Your task to perform on an android device: Go to accessibility settings Image 0: 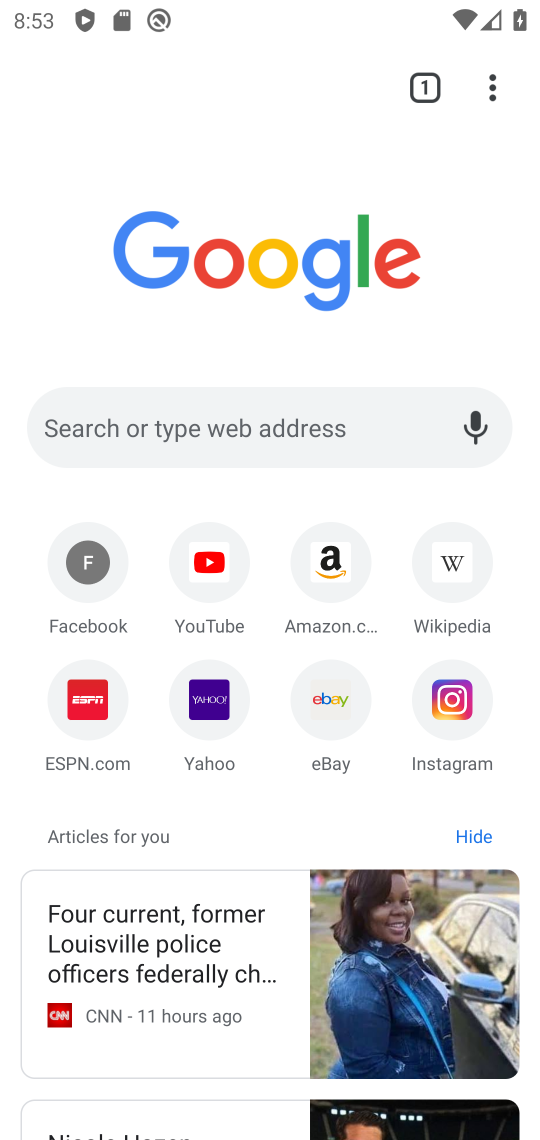
Step 0: press home button
Your task to perform on an android device: Go to accessibility settings Image 1: 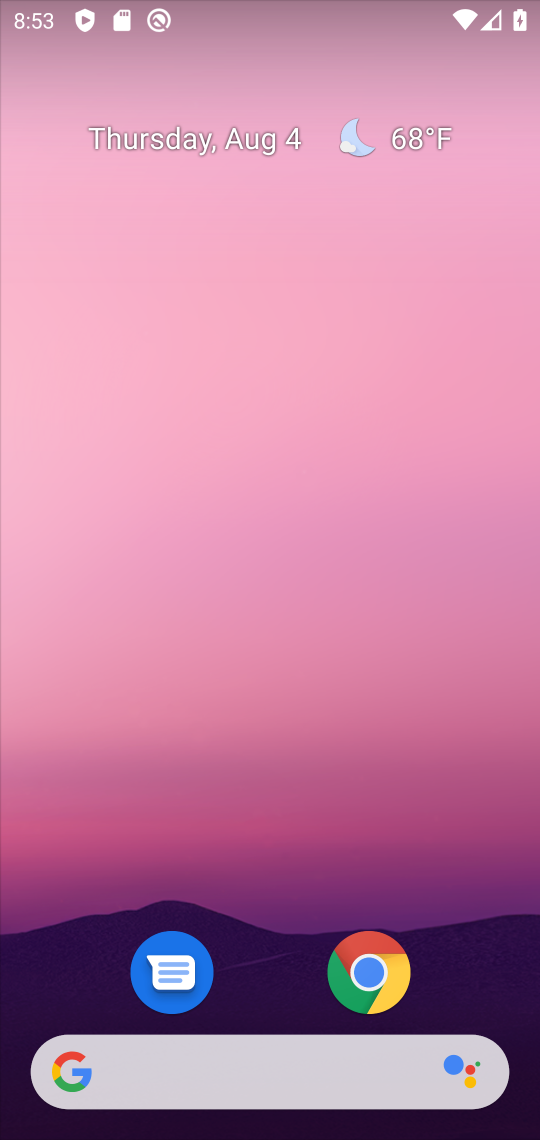
Step 1: drag from (282, 840) to (335, 14)
Your task to perform on an android device: Go to accessibility settings Image 2: 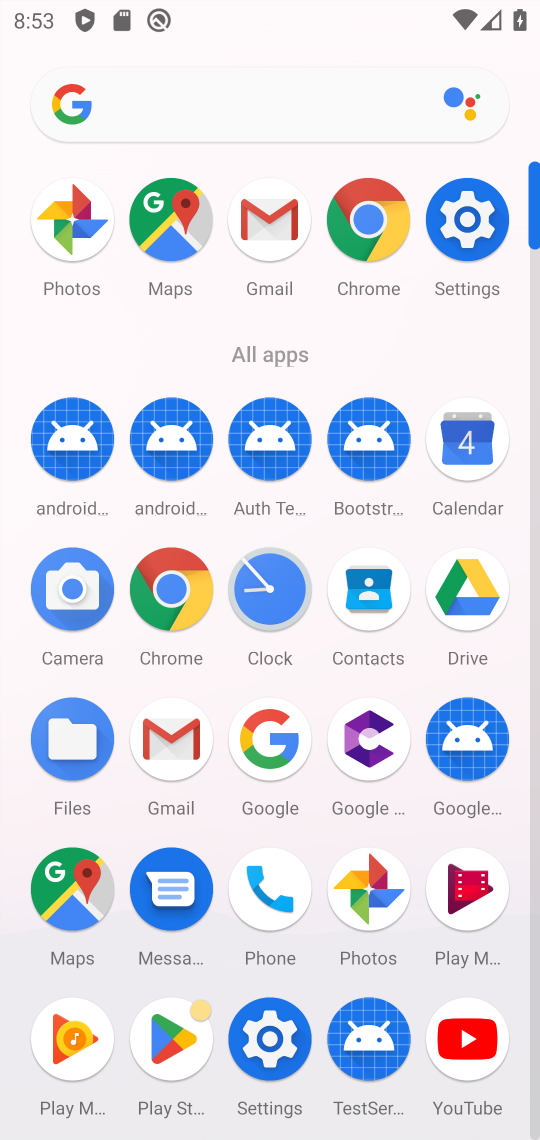
Step 2: click (464, 229)
Your task to perform on an android device: Go to accessibility settings Image 3: 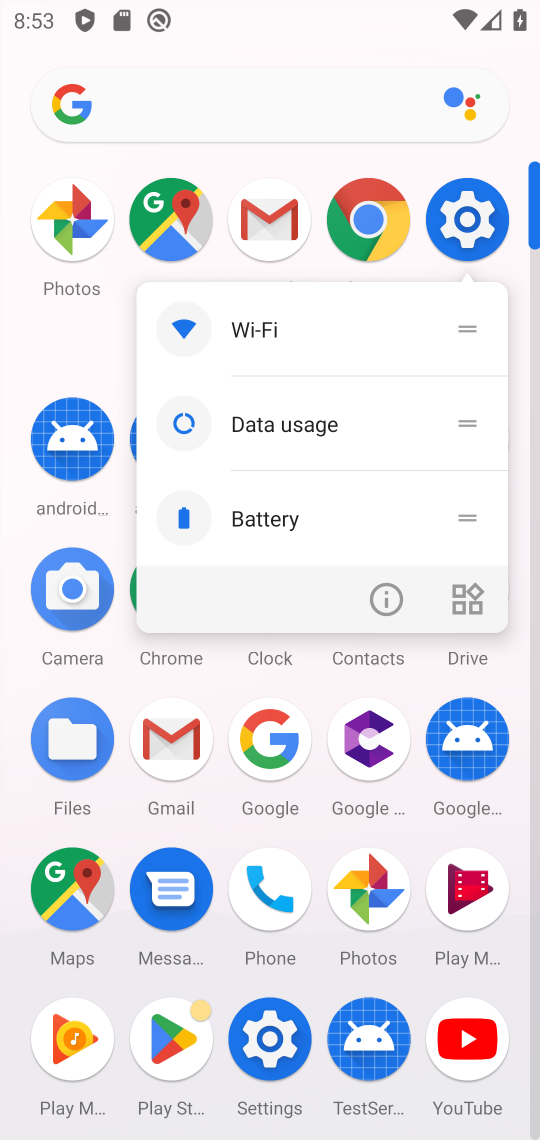
Step 3: click (464, 220)
Your task to perform on an android device: Go to accessibility settings Image 4: 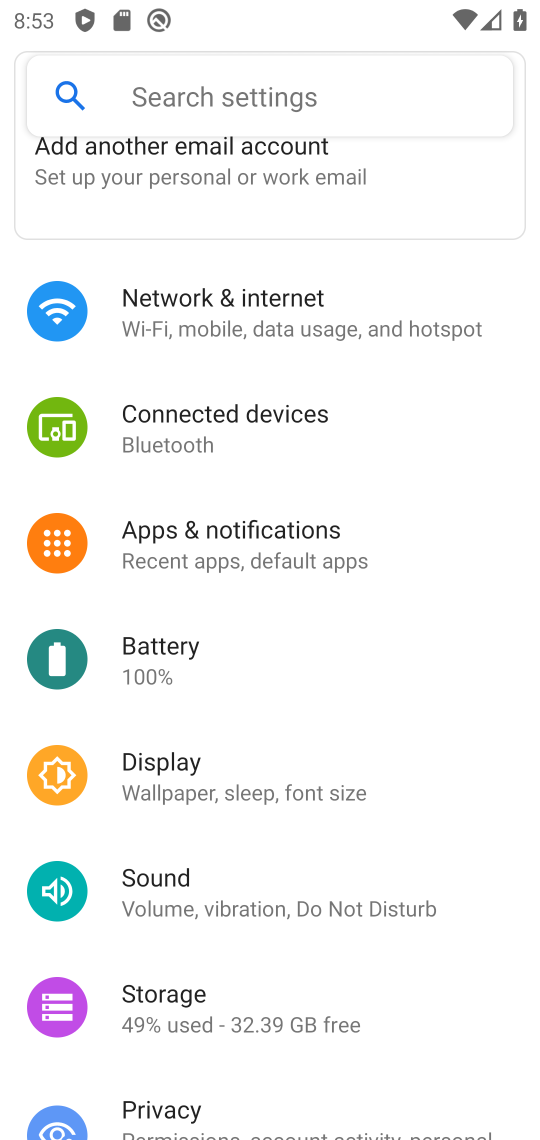
Step 4: drag from (299, 920) to (316, 1)
Your task to perform on an android device: Go to accessibility settings Image 5: 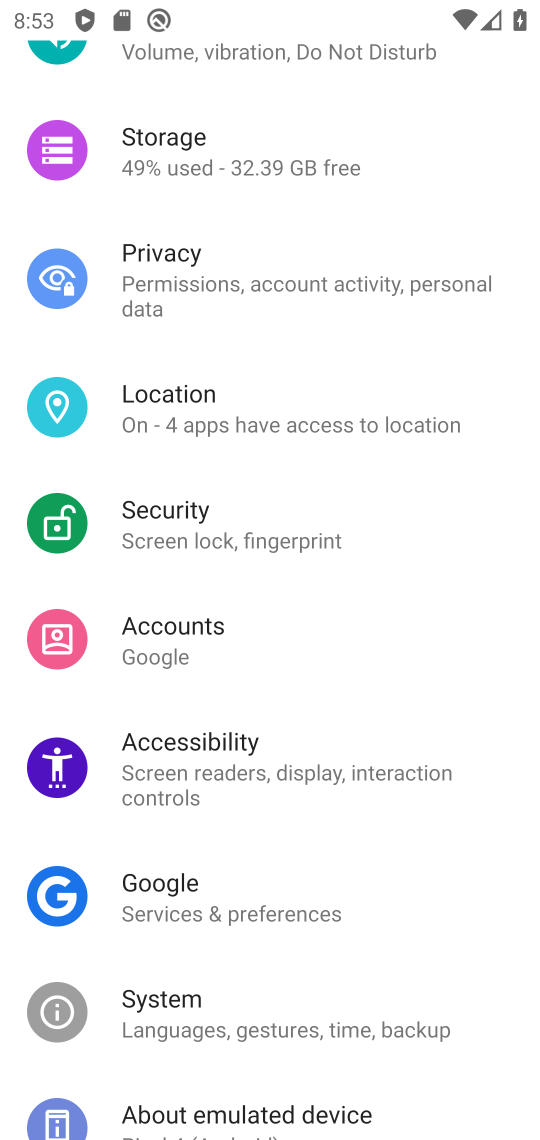
Step 5: click (240, 747)
Your task to perform on an android device: Go to accessibility settings Image 6: 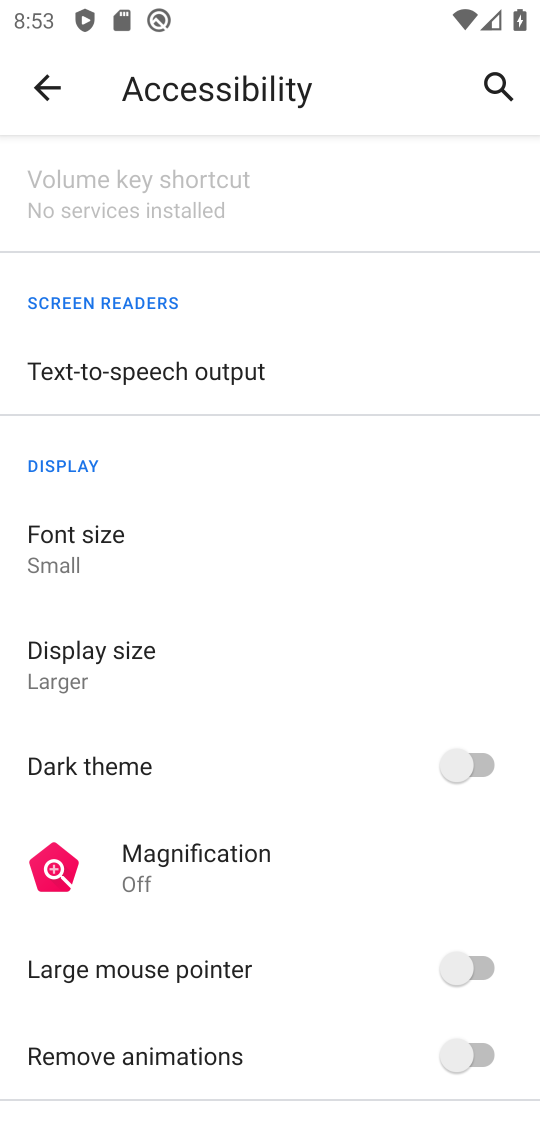
Step 6: task complete